Your task to perform on an android device: turn on airplane mode Image 0: 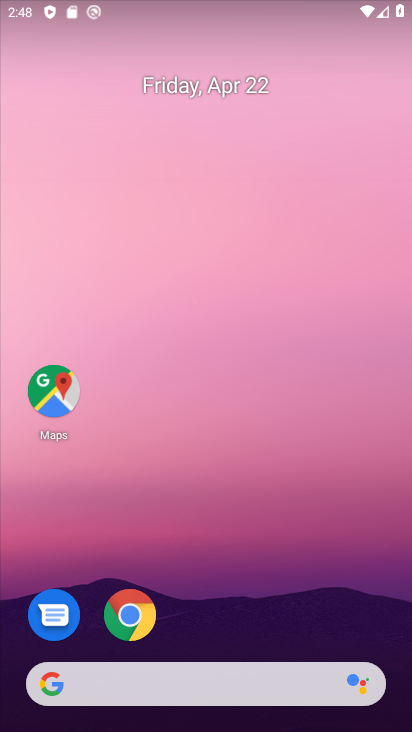
Step 0: drag from (267, 599) to (217, 94)
Your task to perform on an android device: turn on airplane mode Image 1: 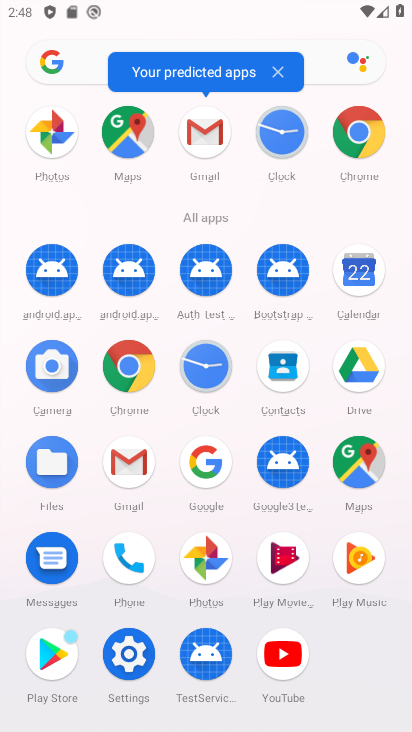
Step 1: click (134, 643)
Your task to perform on an android device: turn on airplane mode Image 2: 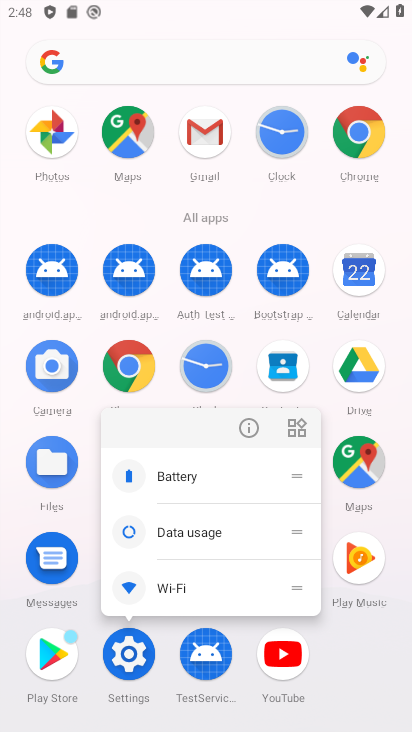
Step 2: click (126, 647)
Your task to perform on an android device: turn on airplane mode Image 3: 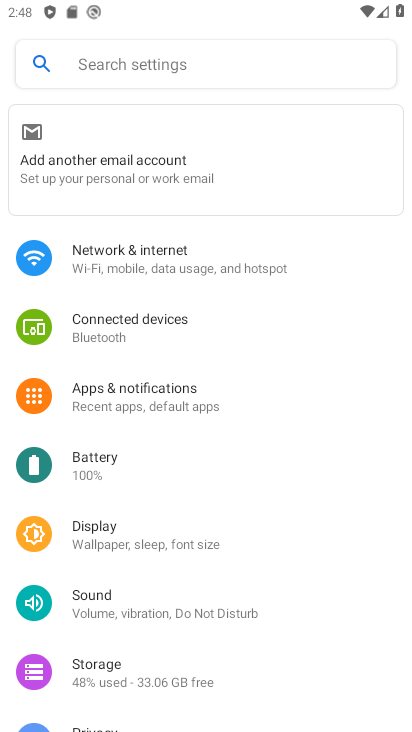
Step 3: click (198, 274)
Your task to perform on an android device: turn on airplane mode Image 4: 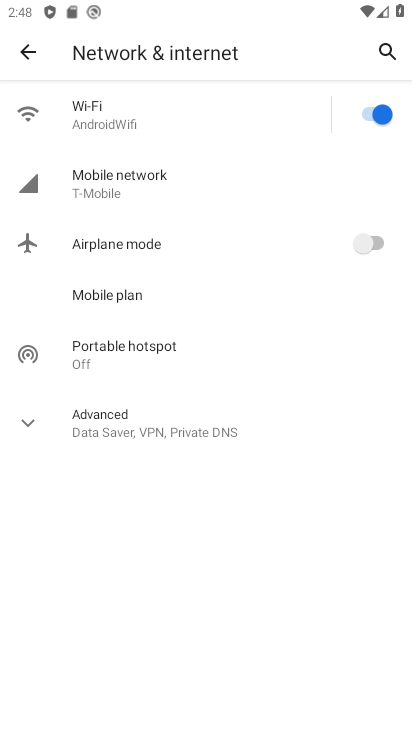
Step 4: click (382, 250)
Your task to perform on an android device: turn on airplane mode Image 5: 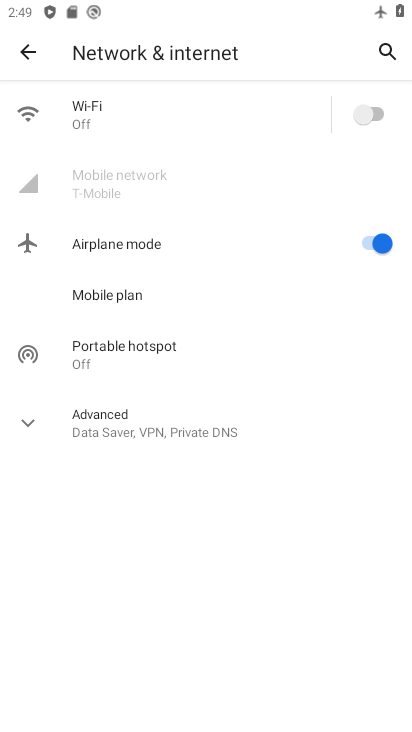
Step 5: task complete